Your task to perform on an android device: manage bookmarks in the chrome app Image 0: 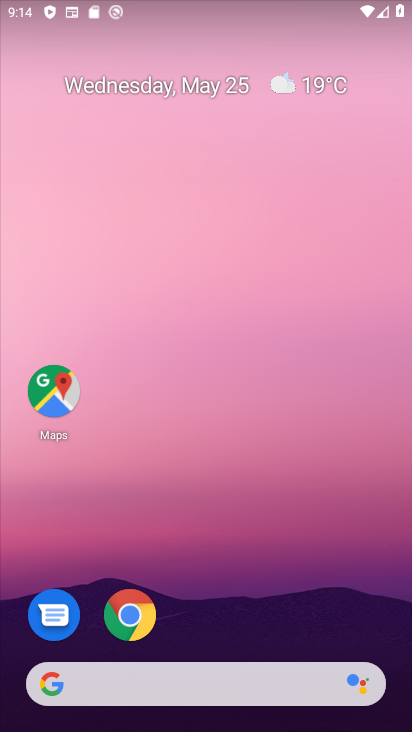
Step 0: drag from (238, 691) to (223, 124)
Your task to perform on an android device: manage bookmarks in the chrome app Image 1: 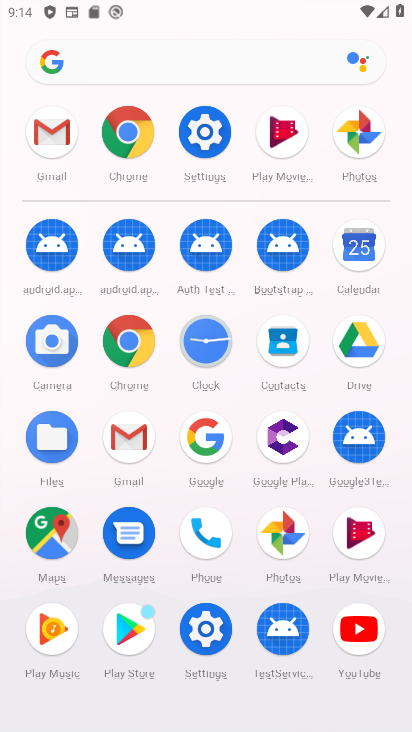
Step 1: click (137, 144)
Your task to perform on an android device: manage bookmarks in the chrome app Image 2: 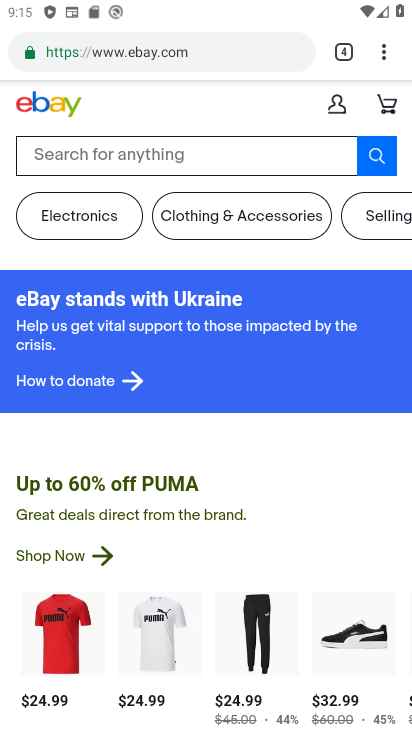
Step 2: click (380, 54)
Your task to perform on an android device: manage bookmarks in the chrome app Image 3: 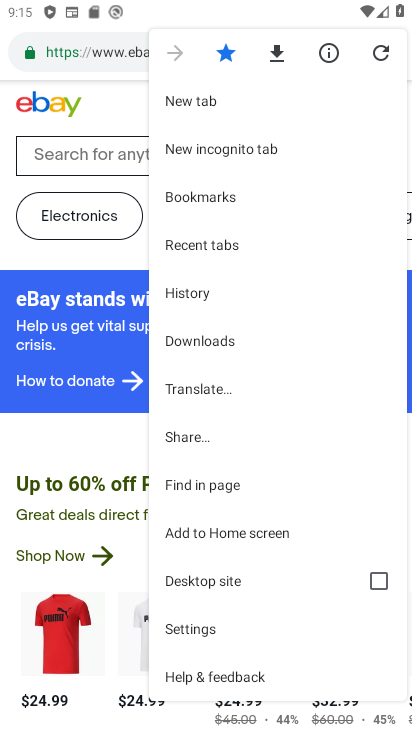
Step 3: click (207, 201)
Your task to perform on an android device: manage bookmarks in the chrome app Image 4: 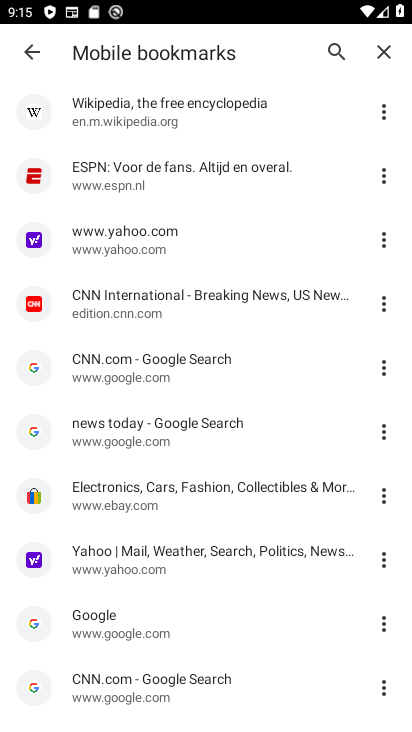
Step 4: task complete